Your task to perform on an android device: Open Chrome and go to settings Image 0: 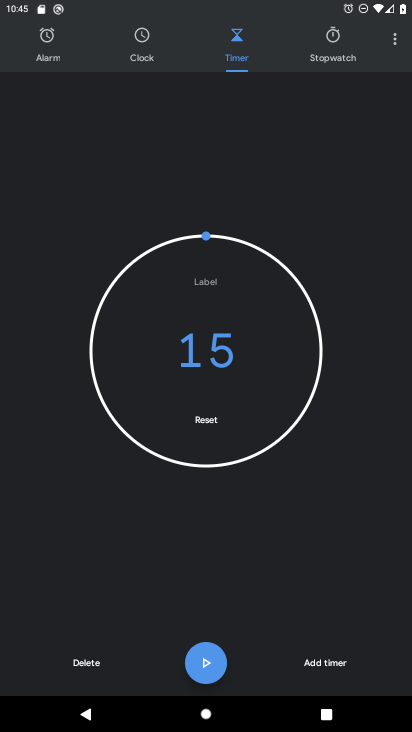
Step 0: press home button
Your task to perform on an android device: Open Chrome and go to settings Image 1: 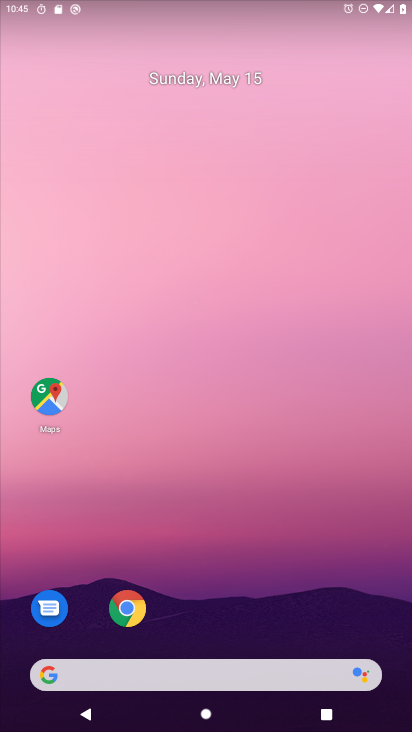
Step 1: drag from (395, 633) to (315, 194)
Your task to perform on an android device: Open Chrome and go to settings Image 2: 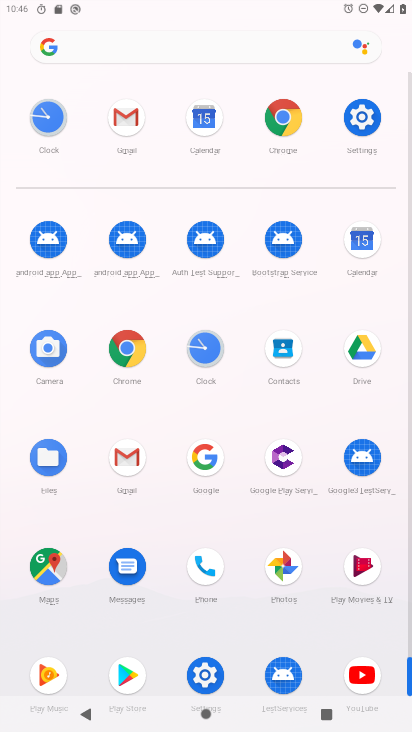
Step 2: click (277, 141)
Your task to perform on an android device: Open Chrome and go to settings Image 3: 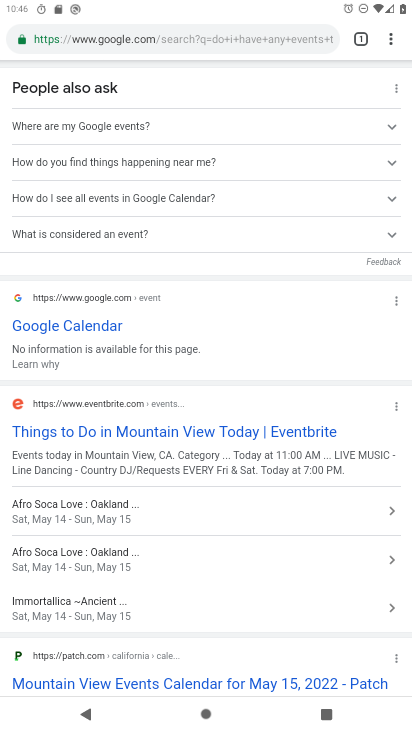
Step 3: drag from (276, 144) to (300, 520)
Your task to perform on an android device: Open Chrome and go to settings Image 4: 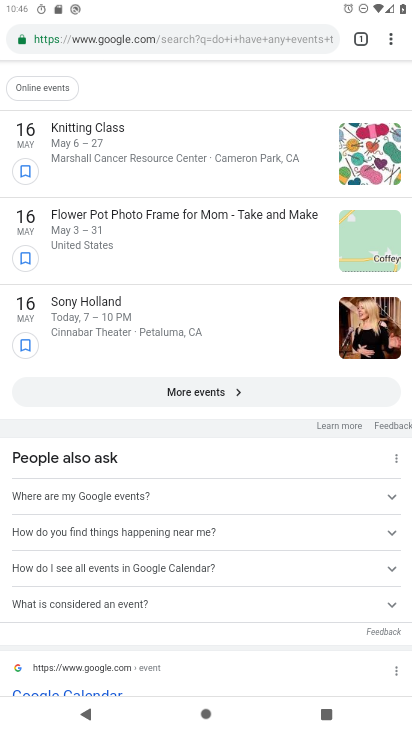
Step 4: click (175, 40)
Your task to perform on an android device: Open Chrome and go to settings Image 5: 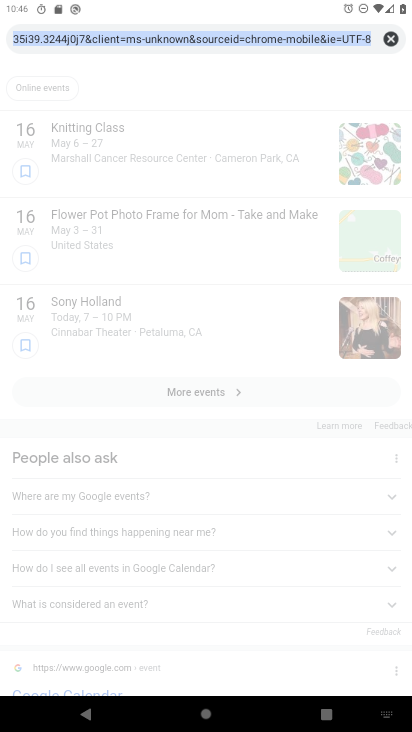
Step 5: click (388, 37)
Your task to perform on an android device: Open Chrome and go to settings Image 6: 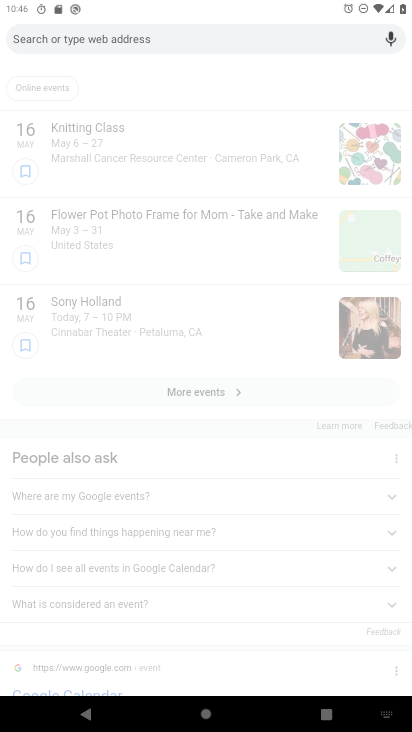
Step 6: task complete